Your task to perform on an android device: turn on improve location accuracy Image 0: 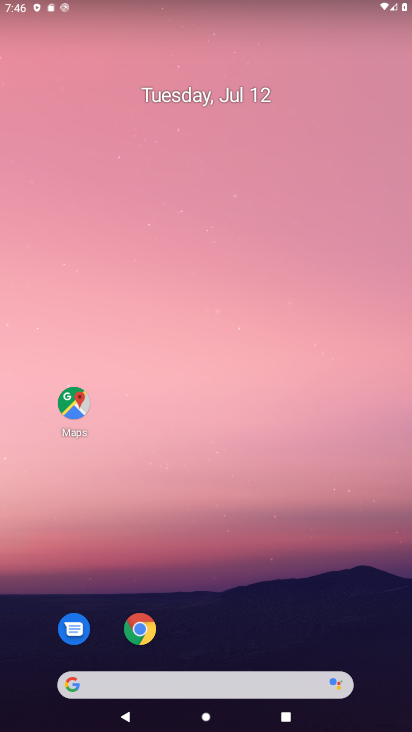
Step 0: drag from (250, 638) to (181, 62)
Your task to perform on an android device: turn on improve location accuracy Image 1: 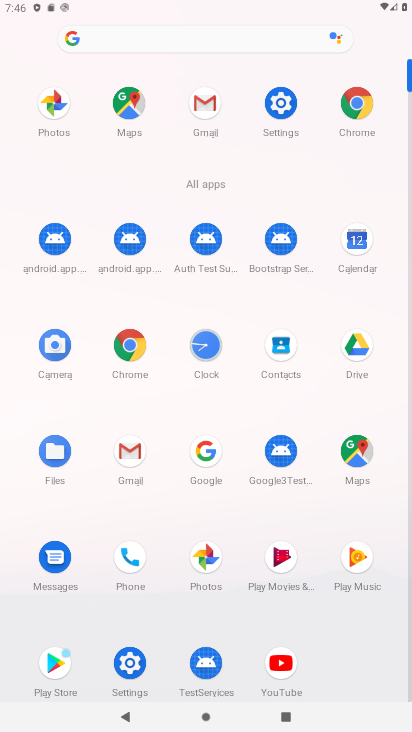
Step 1: click (288, 109)
Your task to perform on an android device: turn on improve location accuracy Image 2: 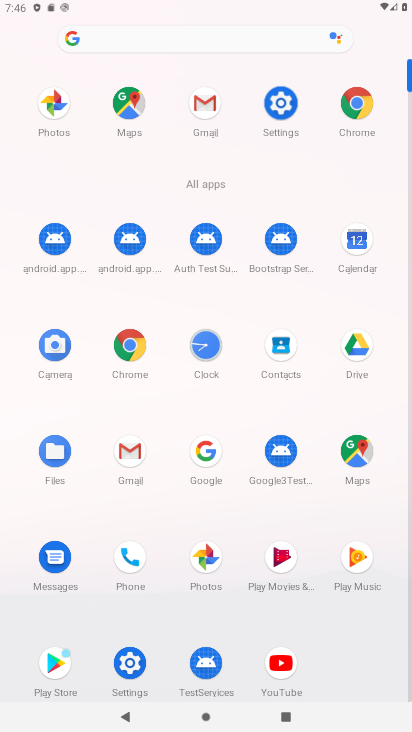
Step 2: click (286, 104)
Your task to perform on an android device: turn on improve location accuracy Image 3: 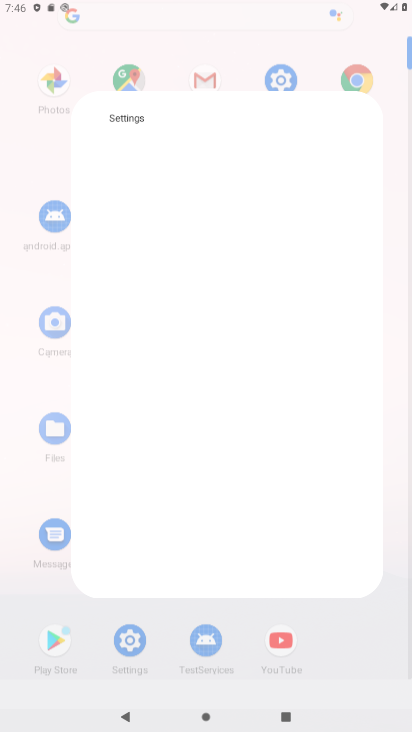
Step 3: click (285, 103)
Your task to perform on an android device: turn on improve location accuracy Image 4: 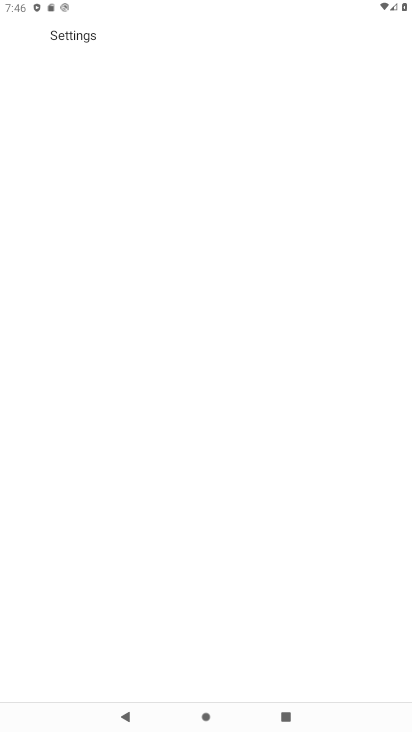
Step 4: click (286, 102)
Your task to perform on an android device: turn on improve location accuracy Image 5: 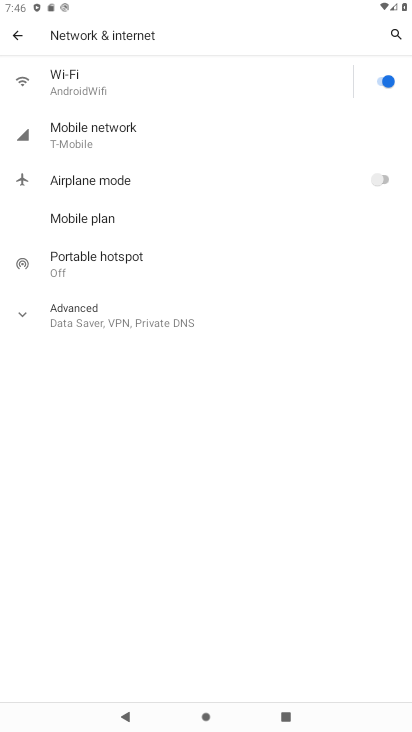
Step 5: click (13, 29)
Your task to perform on an android device: turn on improve location accuracy Image 6: 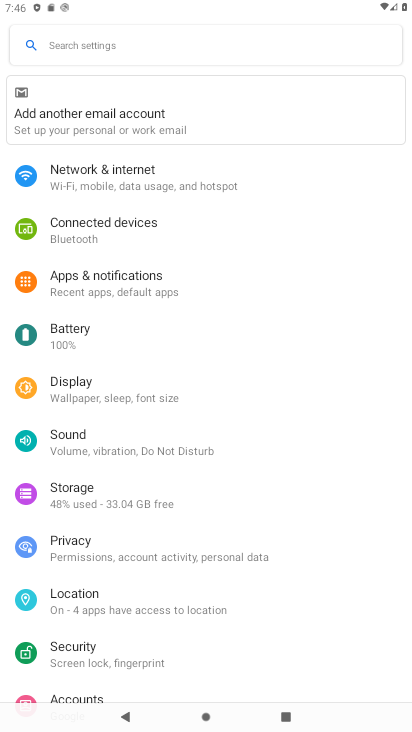
Step 6: click (81, 598)
Your task to perform on an android device: turn on improve location accuracy Image 7: 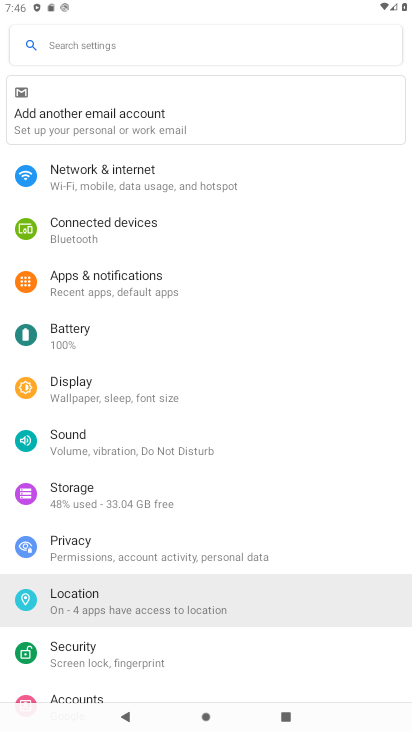
Step 7: click (82, 600)
Your task to perform on an android device: turn on improve location accuracy Image 8: 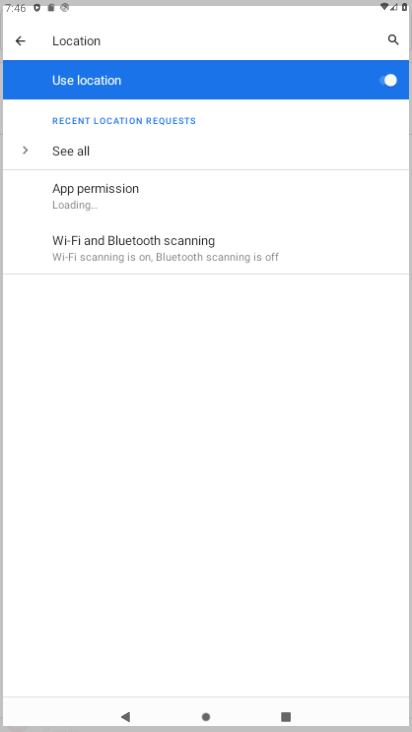
Step 8: click (84, 600)
Your task to perform on an android device: turn on improve location accuracy Image 9: 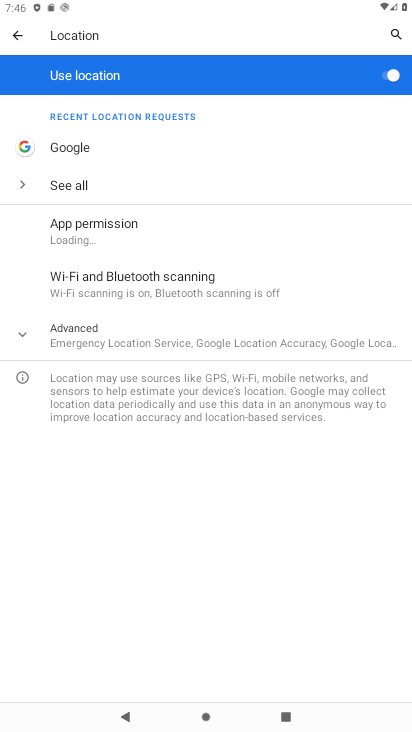
Step 9: click (92, 330)
Your task to perform on an android device: turn on improve location accuracy Image 10: 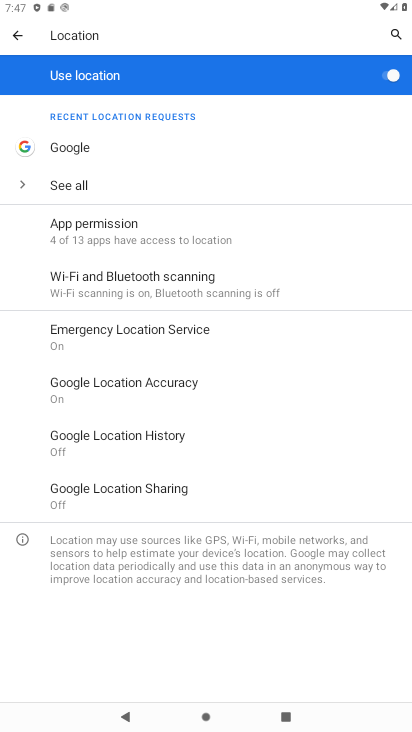
Step 10: click (152, 378)
Your task to perform on an android device: turn on improve location accuracy Image 11: 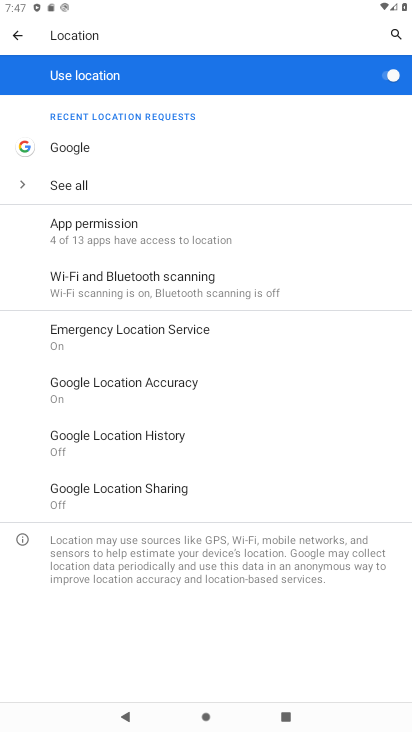
Step 11: click (161, 390)
Your task to perform on an android device: turn on improve location accuracy Image 12: 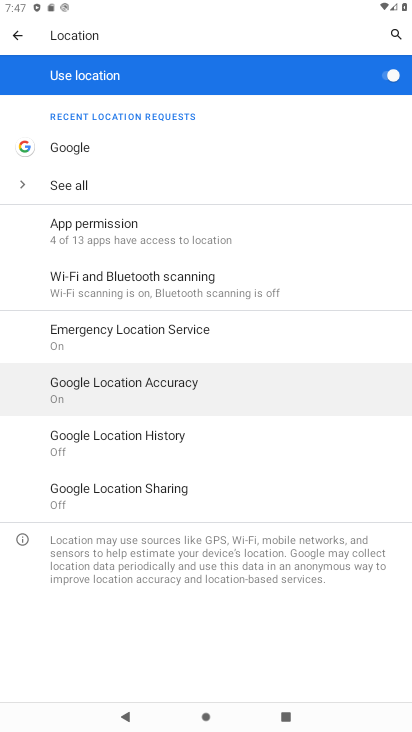
Step 12: click (157, 392)
Your task to perform on an android device: turn on improve location accuracy Image 13: 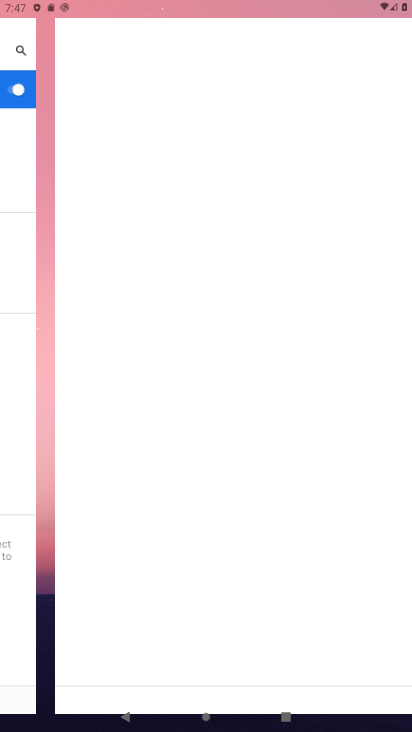
Step 13: click (157, 392)
Your task to perform on an android device: turn on improve location accuracy Image 14: 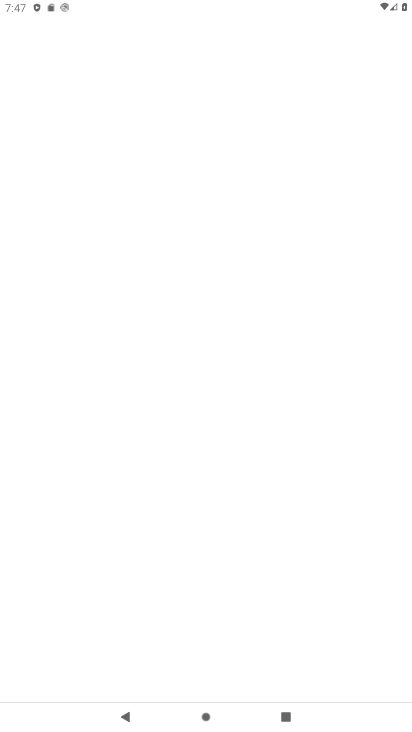
Step 14: click (157, 390)
Your task to perform on an android device: turn on improve location accuracy Image 15: 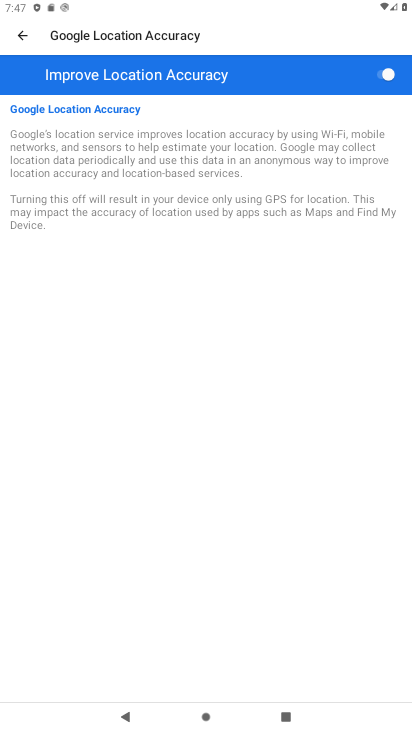
Step 15: task complete